Your task to perform on an android device: See recent photos Image 0: 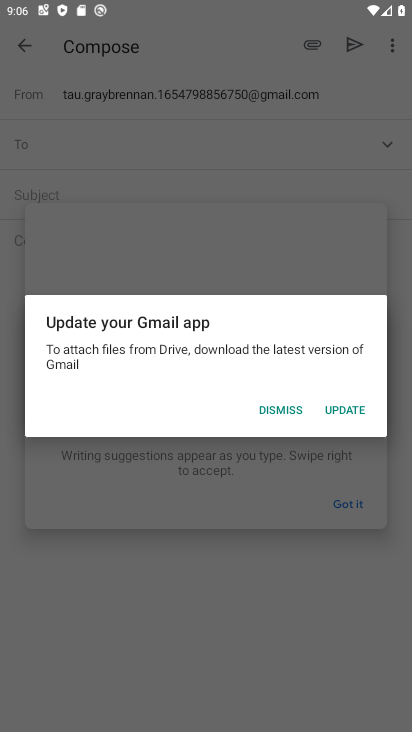
Step 0: press home button
Your task to perform on an android device: See recent photos Image 1: 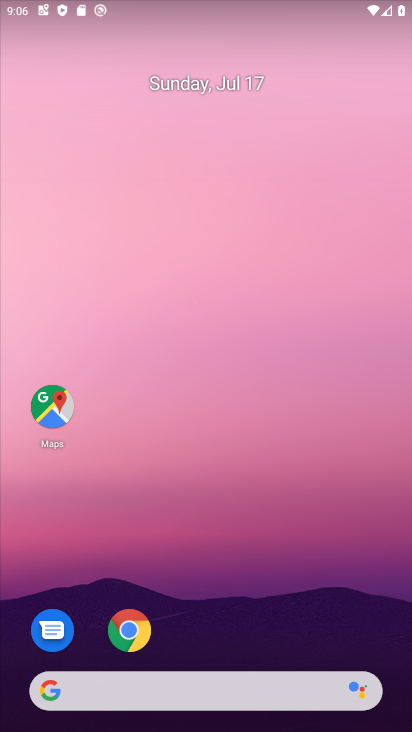
Step 1: drag from (325, 598) to (345, 75)
Your task to perform on an android device: See recent photos Image 2: 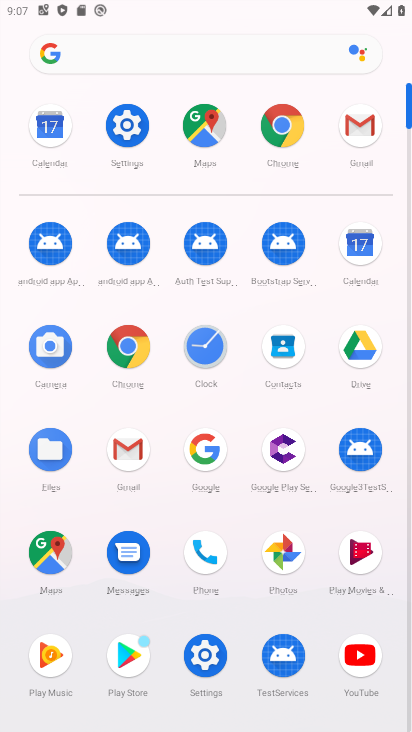
Step 2: click (286, 555)
Your task to perform on an android device: See recent photos Image 3: 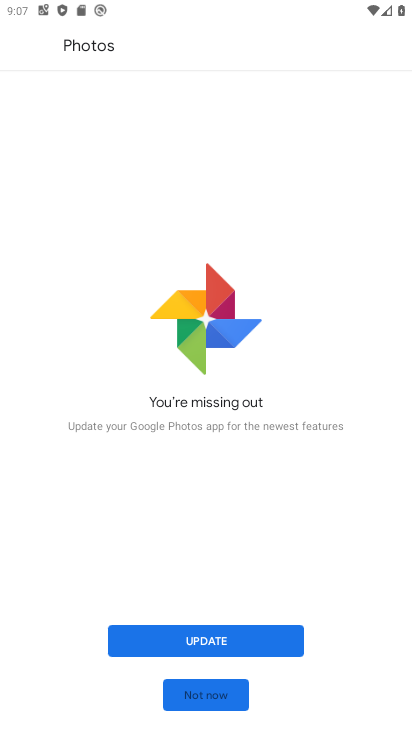
Step 3: click (220, 639)
Your task to perform on an android device: See recent photos Image 4: 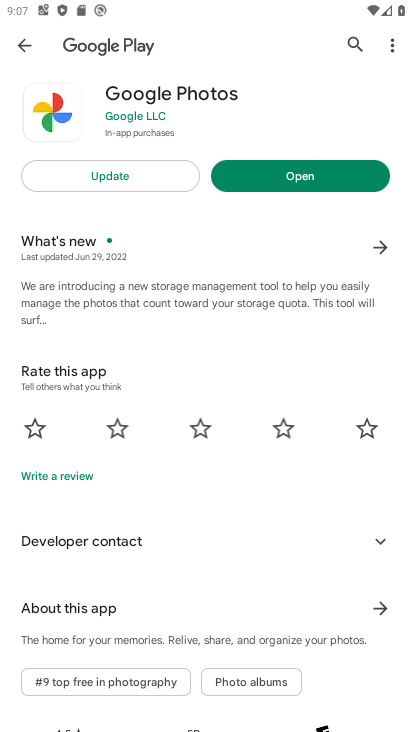
Step 4: click (116, 175)
Your task to perform on an android device: See recent photos Image 5: 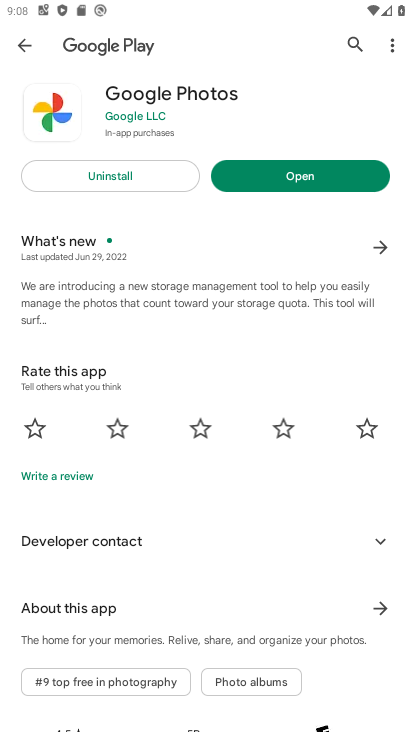
Step 5: click (344, 171)
Your task to perform on an android device: See recent photos Image 6: 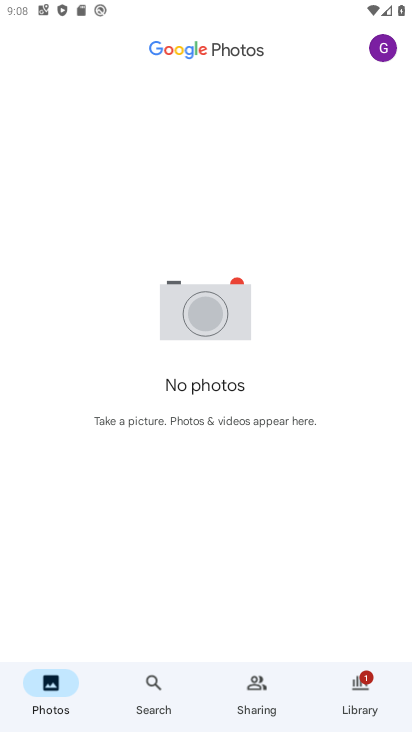
Step 6: task complete